Your task to perform on an android device: turn on location history Image 0: 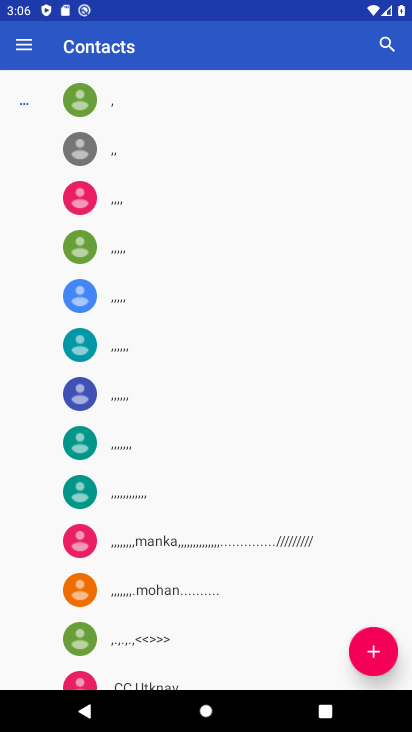
Step 0: press home button
Your task to perform on an android device: turn on location history Image 1: 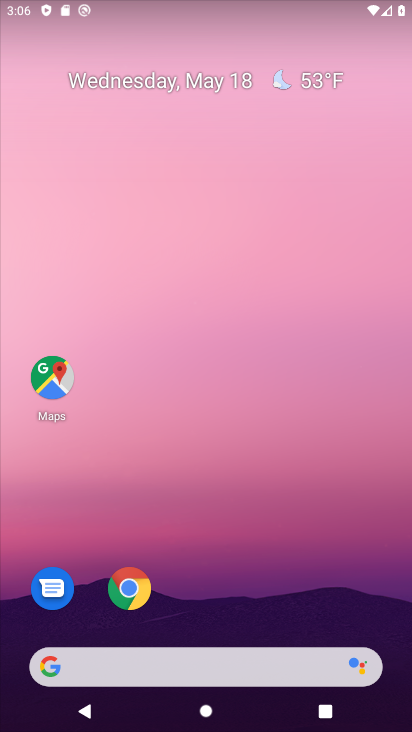
Step 1: click (80, 376)
Your task to perform on an android device: turn on location history Image 2: 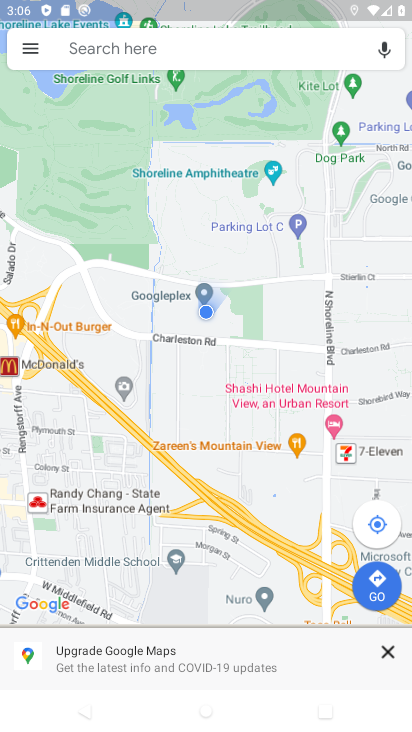
Step 2: click (30, 40)
Your task to perform on an android device: turn on location history Image 3: 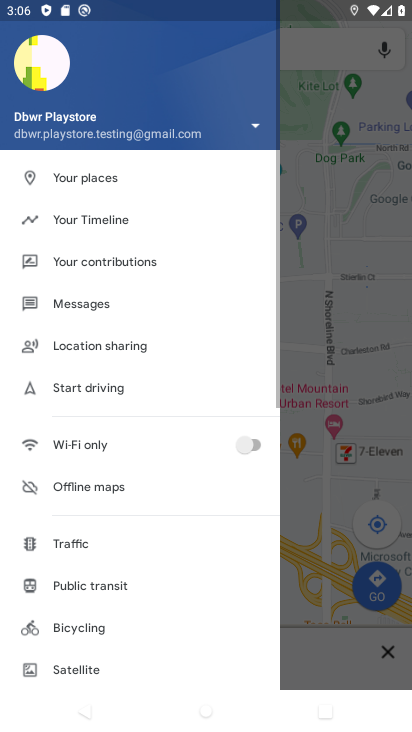
Step 3: click (114, 227)
Your task to perform on an android device: turn on location history Image 4: 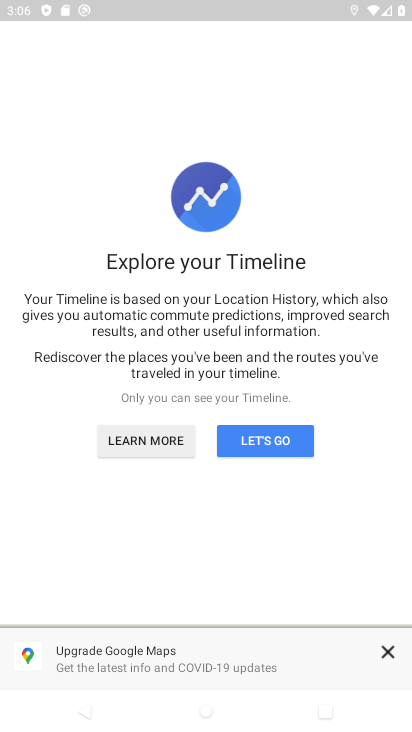
Step 4: click (273, 449)
Your task to perform on an android device: turn on location history Image 5: 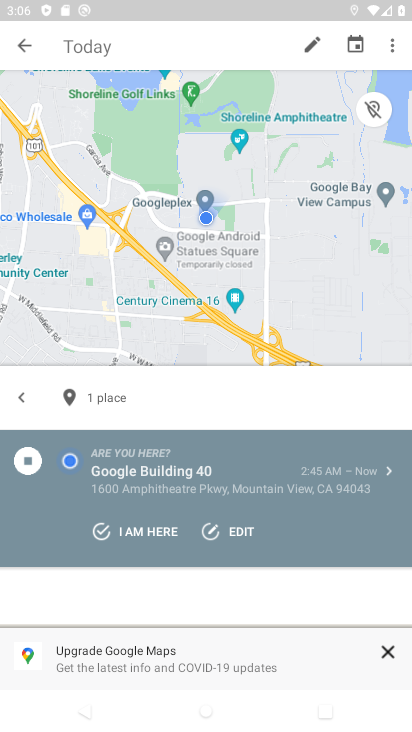
Step 5: click (396, 35)
Your task to perform on an android device: turn on location history Image 6: 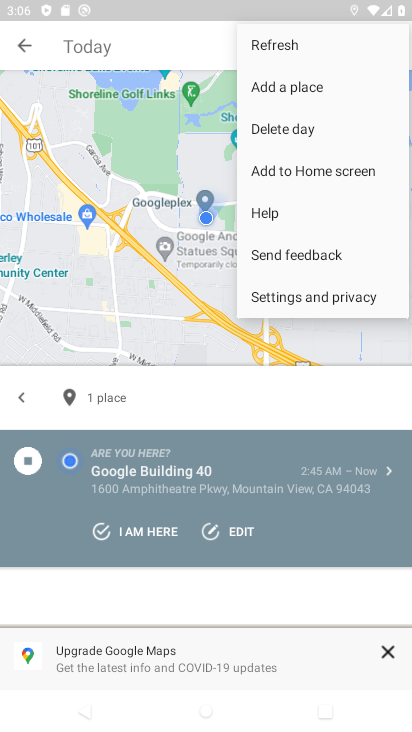
Step 6: click (289, 303)
Your task to perform on an android device: turn on location history Image 7: 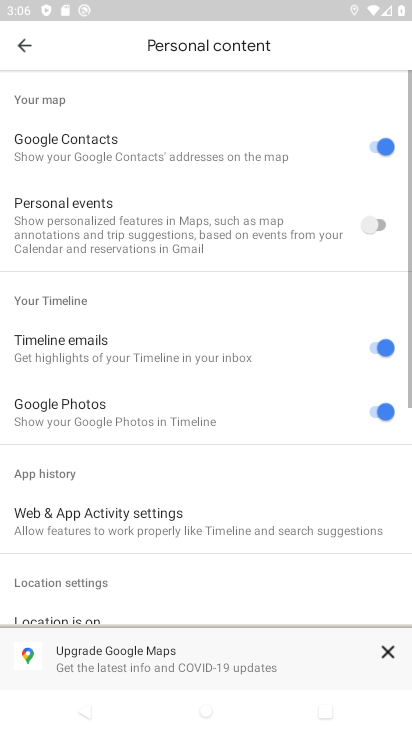
Step 7: drag from (229, 508) to (220, 154)
Your task to perform on an android device: turn on location history Image 8: 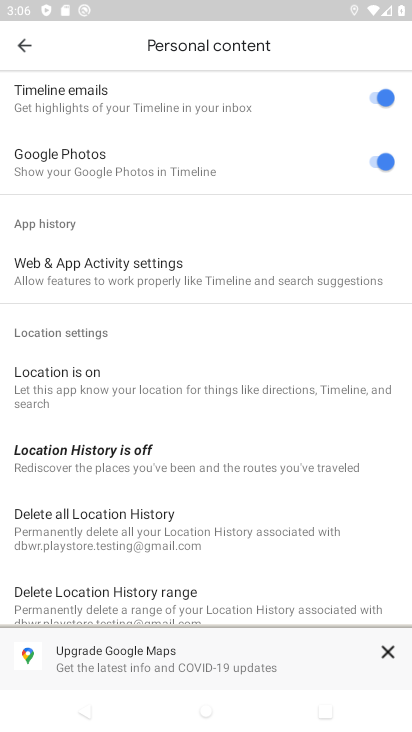
Step 8: click (113, 454)
Your task to perform on an android device: turn on location history Image 9: 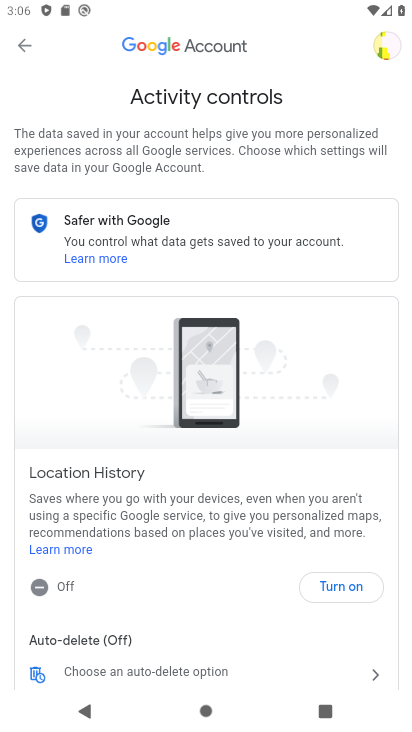
Step 9: click (324, 589)
Your task to perform on an android device: turn on location history Image 10: 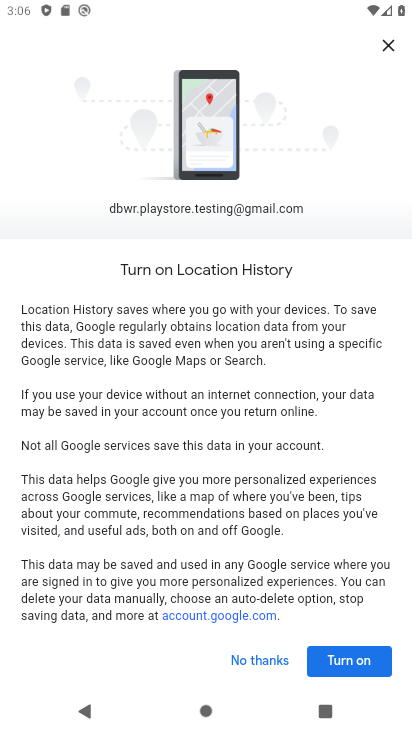
Step 10: click (371, 660)
Your task to perform on an android device: turn on location history Image 11: 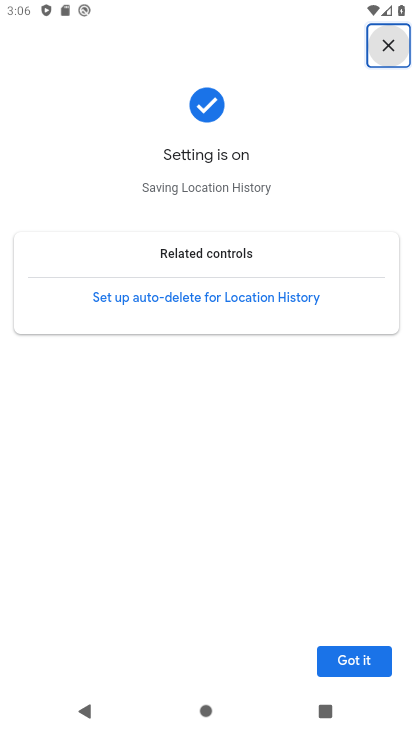
Step 11: click (366, 642)
Your task to perform on an android device: turn on location history Image 12: 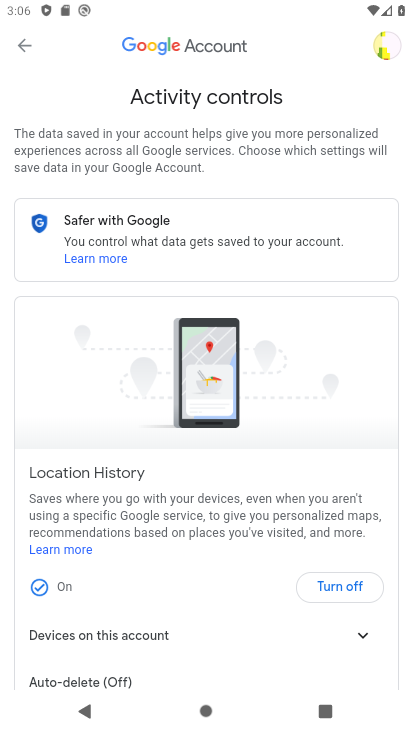
Step 12: task complete